Your task to perform on an android device: Is it going to rain this weekend? Image 0: 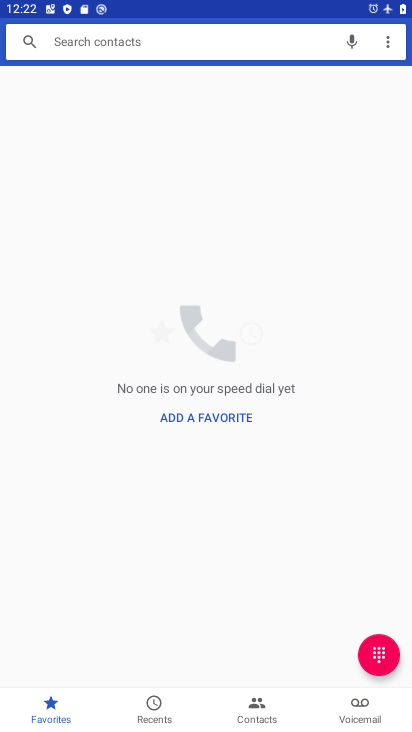
Step 0: press home button
Your task to perform on an android device: Is it going to rain this weekend? Image 1: 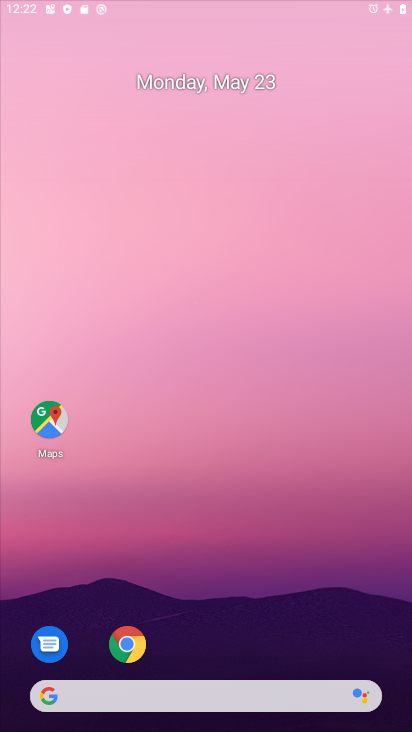
Step 1: drag from (339, 631) to (324, 13)
Your task to perform on an android device: Is it going to rain this weekend? Image 2: 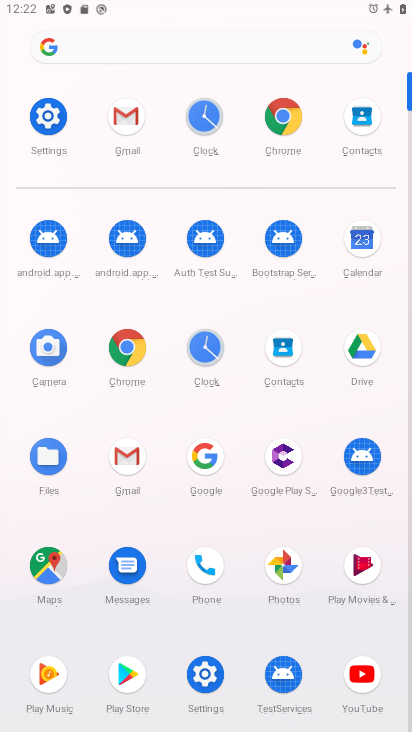
Step 2: click (213, 474)
Your task to perform on an android device: Is it going to rain this weekend? Image 3: 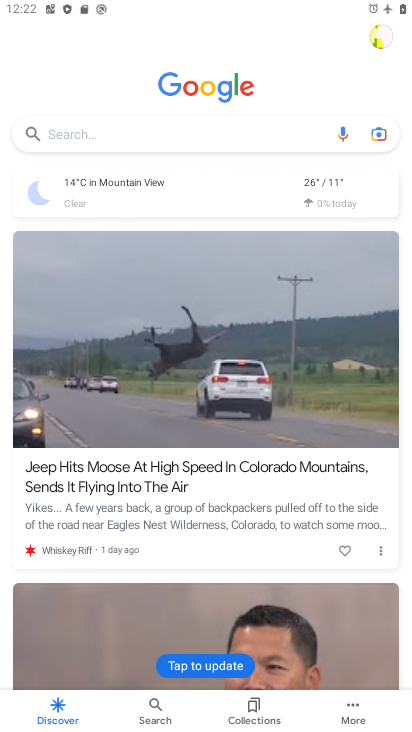
Step 3: click (138, 137)
Your task to perform on an android device: Is it going to rain this weekend? Image 4: 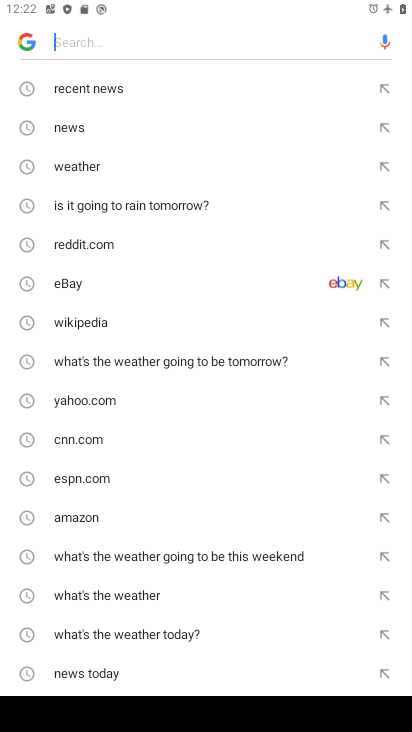
Step 4: drag from (163, 608) to (224, 428)
Your task to perform on an android device: Is it going to rain this weekend? Image 5: 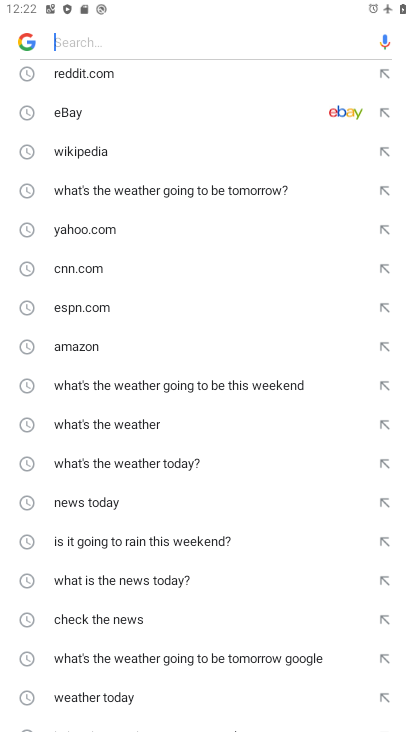
Step 5: click (219, 538)
Your task to perform on an android device: Is it going to rain this weekend? Image 6: 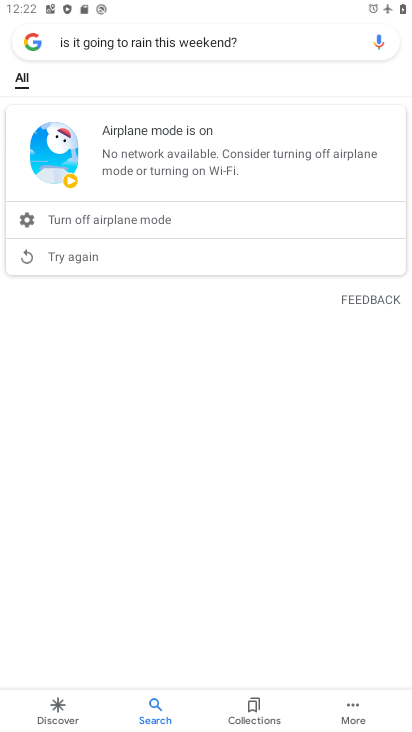
Step 6: task complete